Your task to perform on an android device: allow notifications from all sites in the chrome app Image 0: 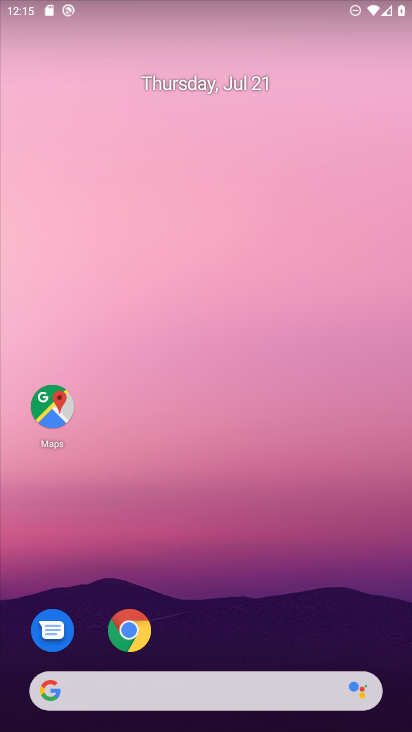
Step 0: drag from (182, 504) to (210, 48)
Your task to perform on an android device: allow notifications from all sites in the chrome app Image 1: 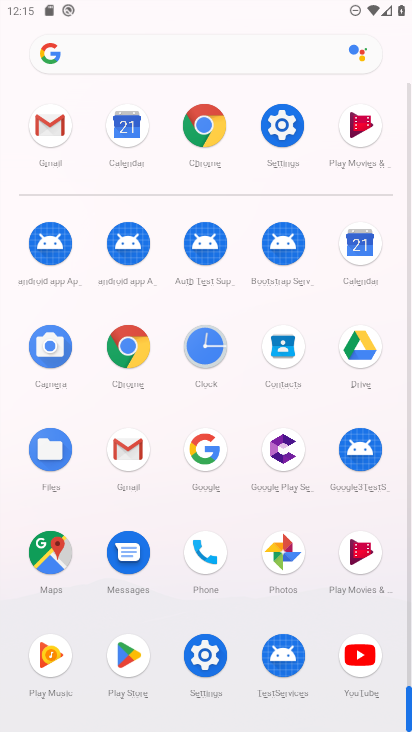
Step 1: click (124, 340)
Your task to perform on an android device: allow notifications from all sites in the chrome app Image 2: 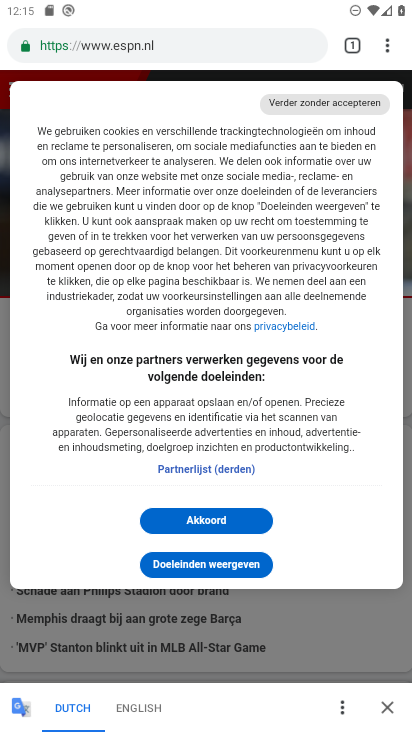
Step 2: drag from (385, 37) to (248, 546)
Your task to perform on an android device: allow notifications from all sites in the chrome app Image 3: 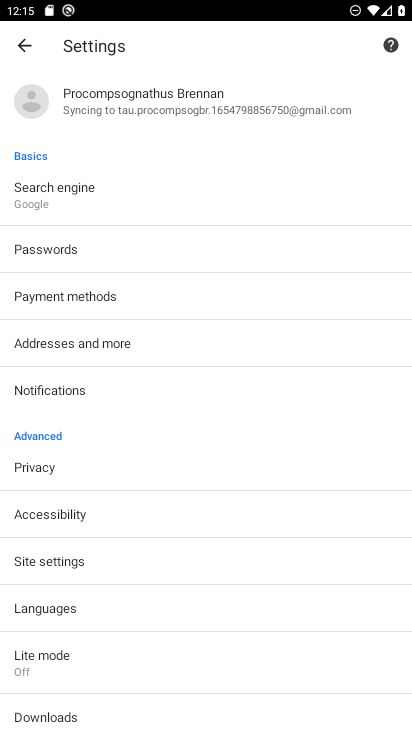
Step 3: click (76, 564)
Your task to perform on an android device: allow notifications from all sites in the chrome app Image 4: 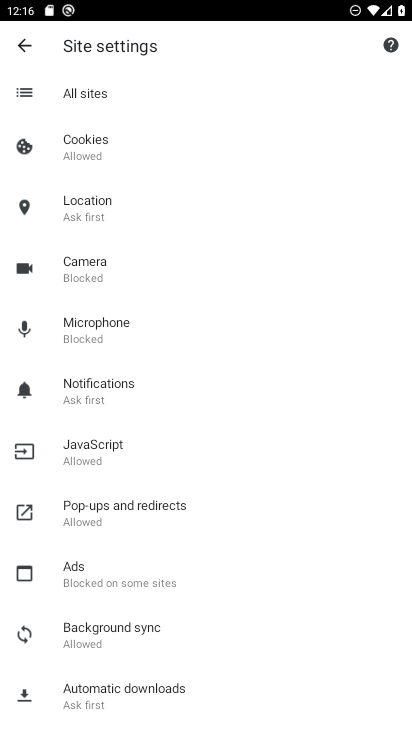
Step 4: click (121, 395)
Your task to perform on an android device: allow notifications from all sites in the chrome app Image 5: 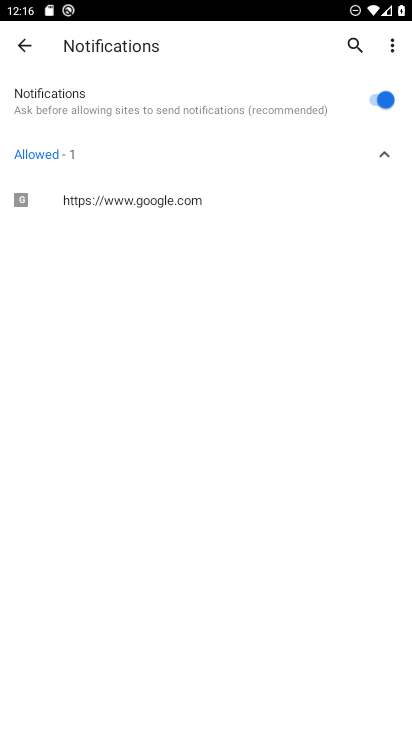
Step 5: task complete